Your task to perform on an android device: Go to Google maps Image 0: 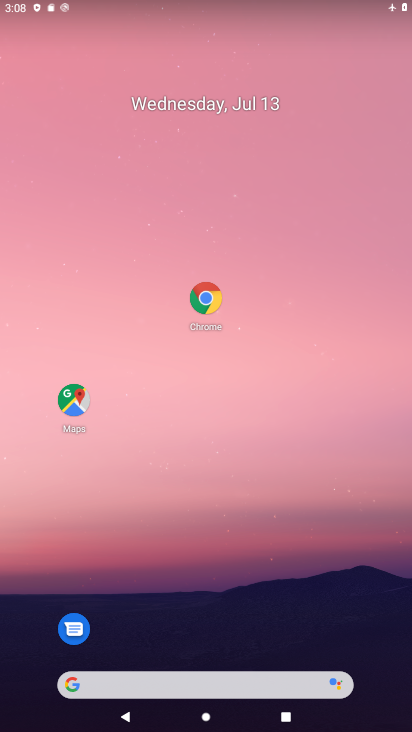
Step 0: drag from (117, 663) to (212, 211)
Your task to perform on an android device: Go to Google maps Image 1: 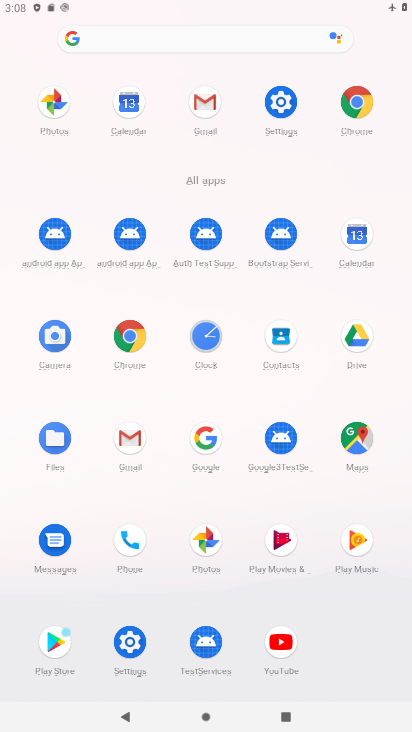
Step 1: click (358, 433)
Your task to perform on an android device: Go to Google maps Image 2: 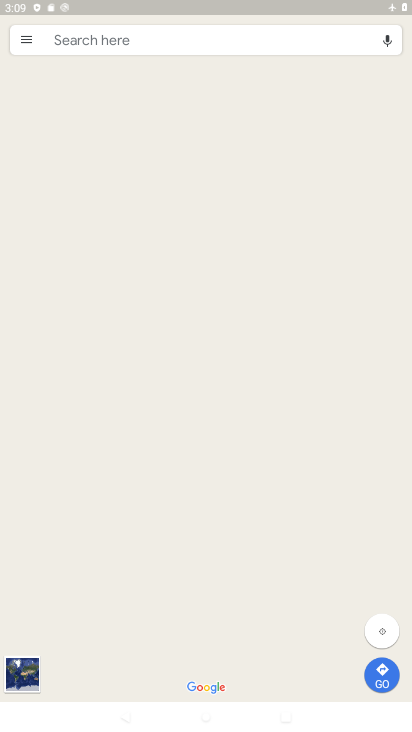
Step 2: task complete